Your task to perform on an android device: What's the weather like in Tokyo? Image 0: 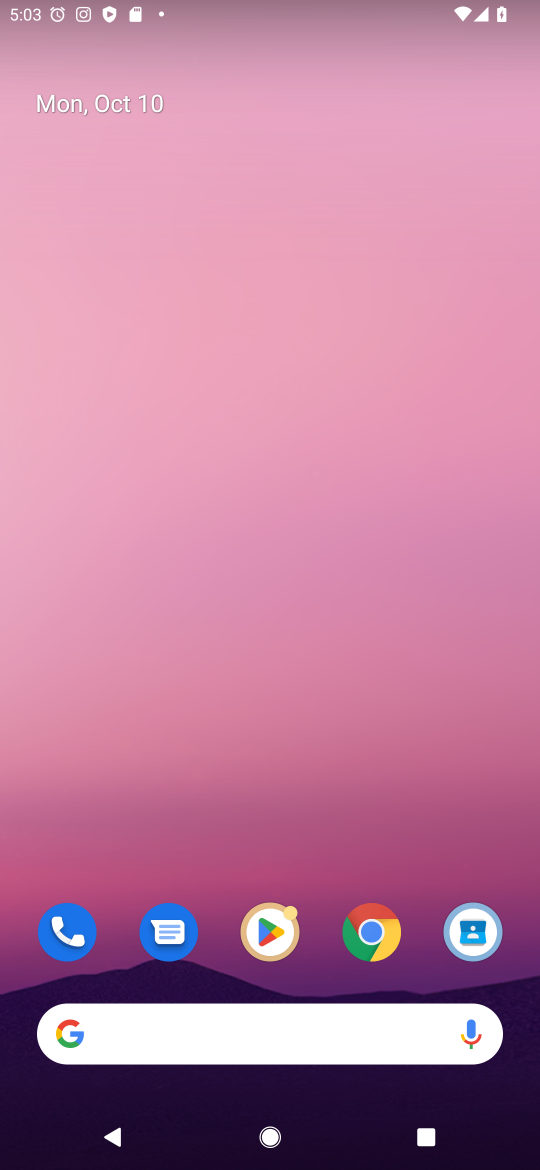
Step 0: press home button
Your task to perform on an android device: What's the weather like in Tokyo? Image 1: 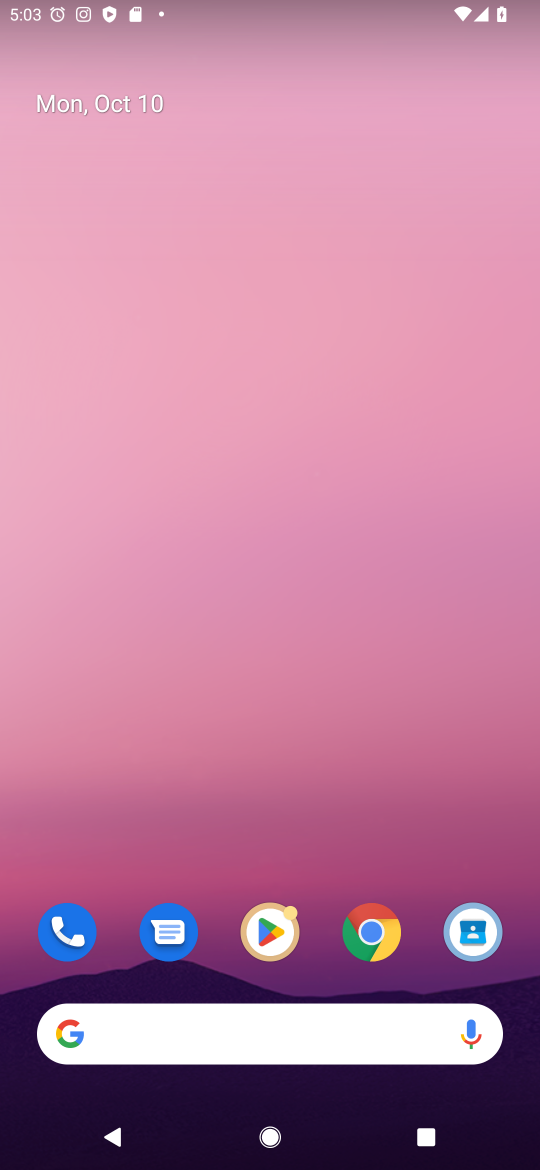
Step 1: click (291, 1033)
Your task to perform on an android device: What's the weather like in Tokyo? Image 2: 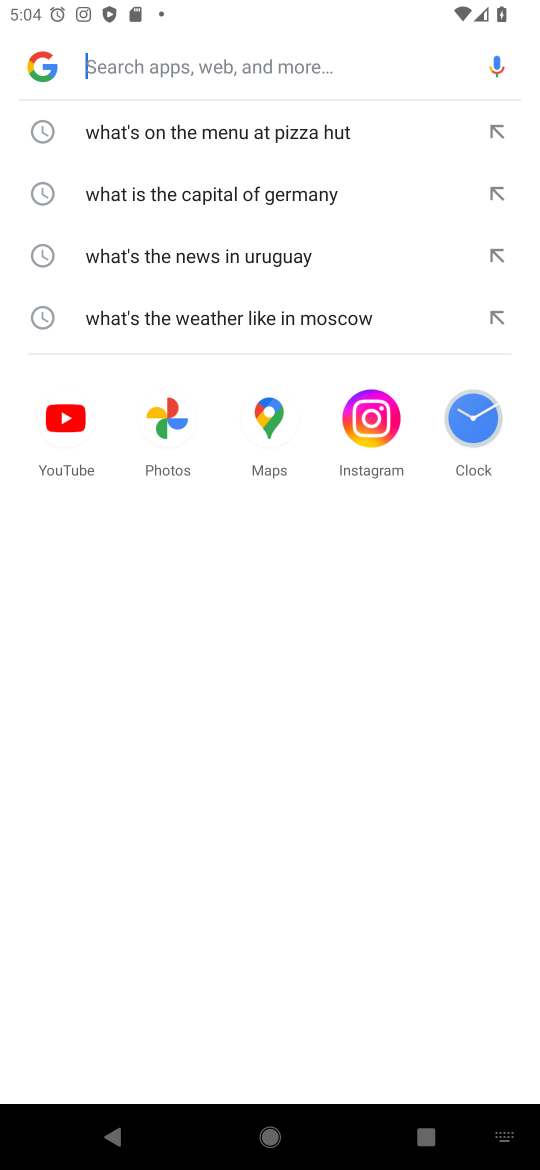
Step 2: type "What's the weather like in Tokyo"
Your task to perform on an android device: What's the weather like in Tokyo? Image 3: 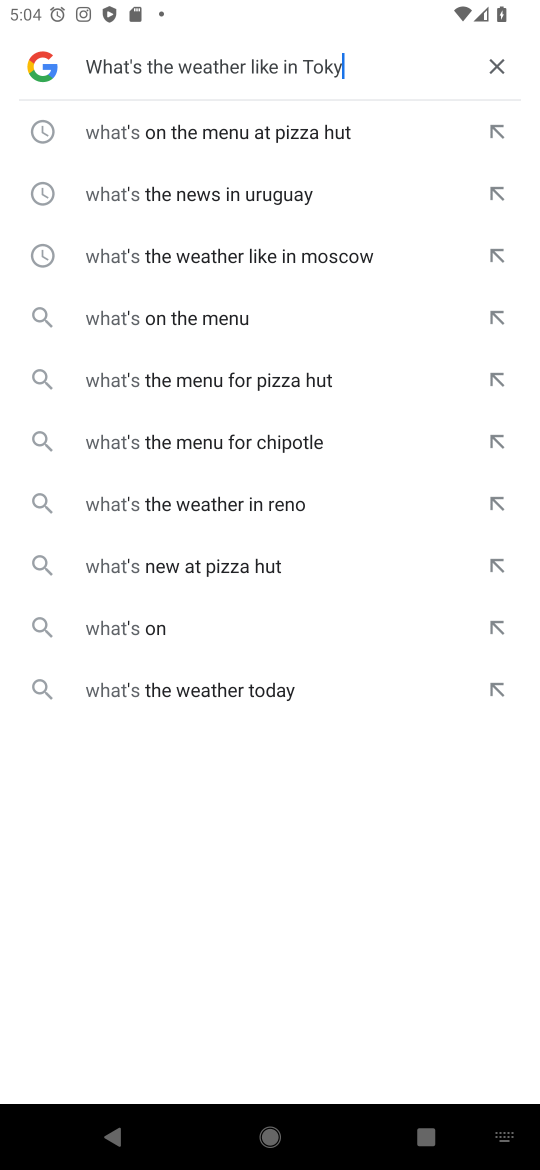
Step 3: press enter
Your task to perform on an android device: What's the weather like in Tokyo? Image 4: 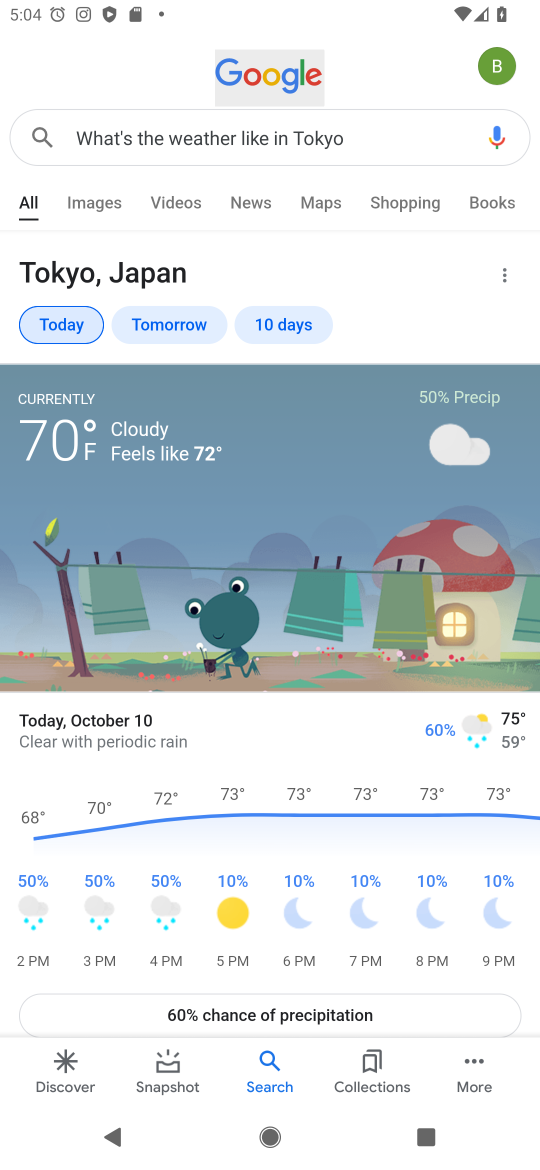
Step 4: task complete